Your task to perform on an android device: find snoozed emails in the gmail app Image 0: 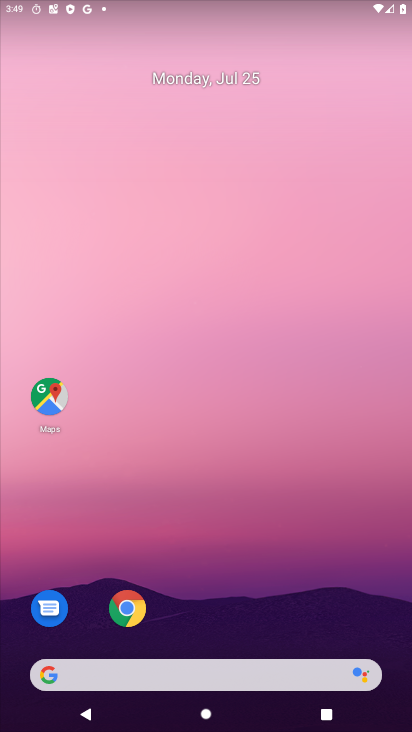
Step 0: press home button
Your task to perform on an android device: find snoozed emails in the gmail app Image 1: 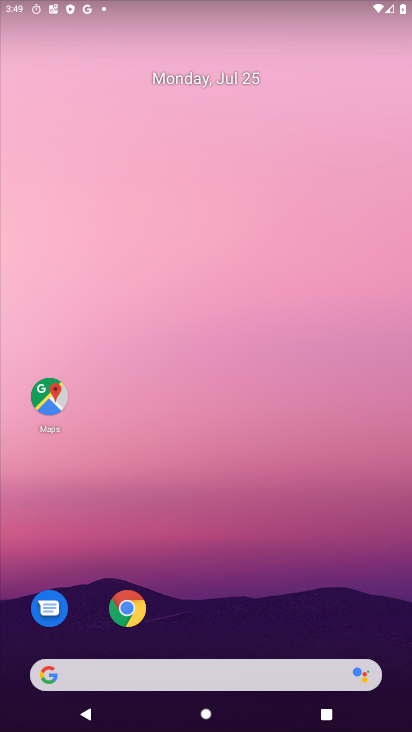
Step 1: drag from (204, 630) to (208, 215)
Your task to perform on an android device: find snoozed emails in the gmail app Image 2: 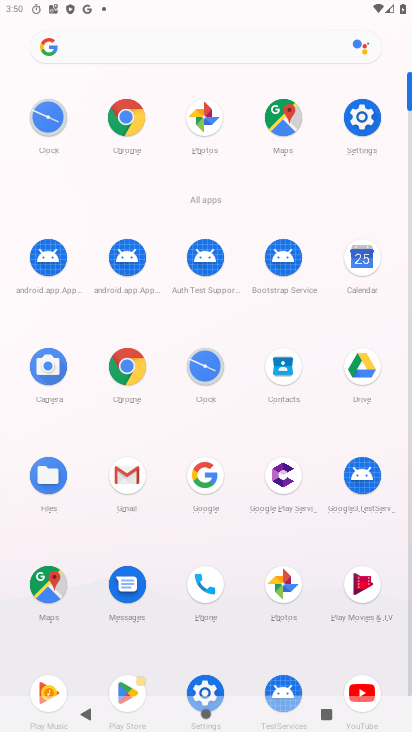
Step 2: click (126, 472)
Your task to perform on an android device: find snoozed emails in the gmail app Image 3: 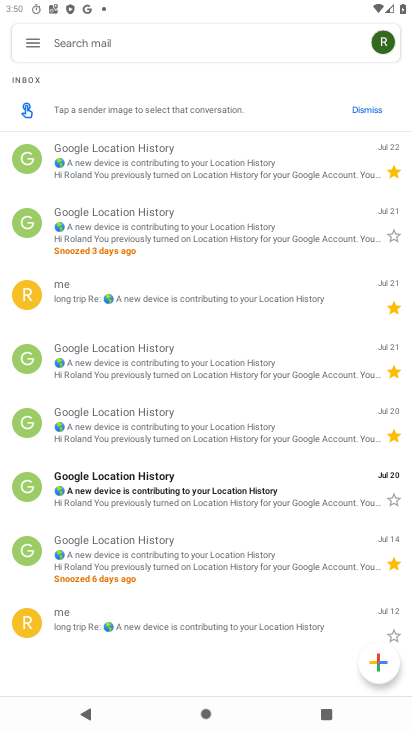
Step 3: press home button
Your task to perform on an android device: find snoozed emails in the gmail app Image 4: 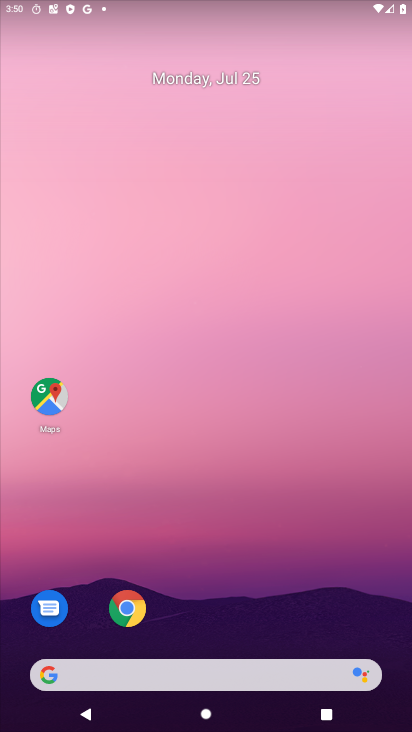
Step 4: drag from (204, 635) to (226, 4)
Your task to perform on an android device: find snoozed emails in the gmail app Image 5: 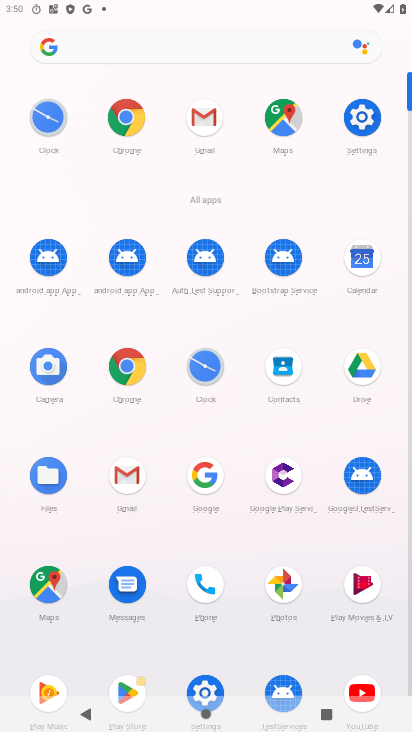
Step 5: click (126, 462)
Your task to perform on an android device: find snoozed emails in the gmail app Image 6: 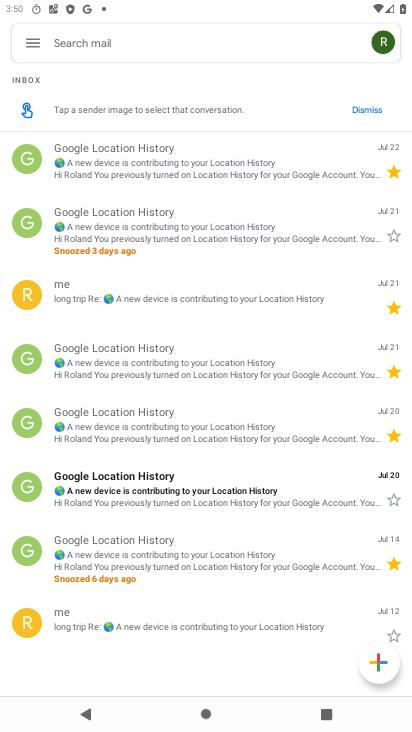
Step 6: click (26, 46)
Your task to perform on an android device: find snoozed emails in the gmail app Image 7: 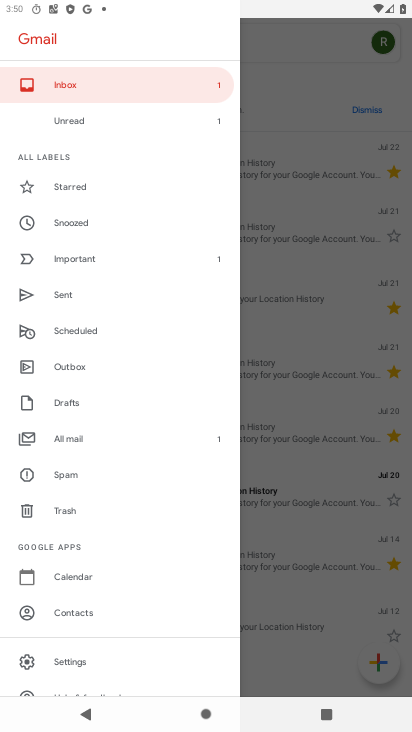
Step 7: click (83, 223)
Your task to perform on an android device: find snoozed emails in the gmail app Image 8: 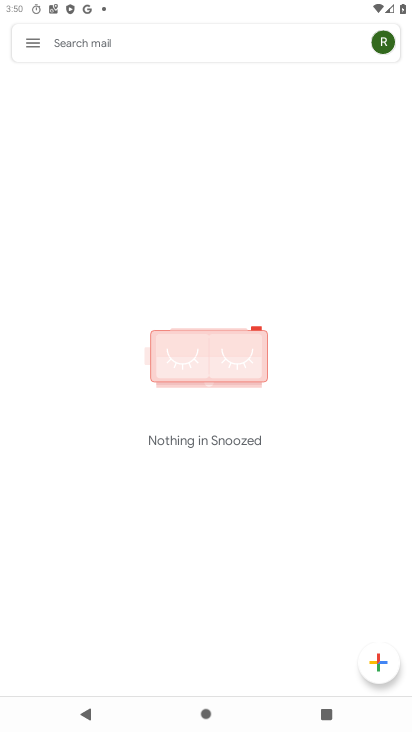
Step 8: task complete